Your task to perform on an android device: Open ESPN.com Image 0: 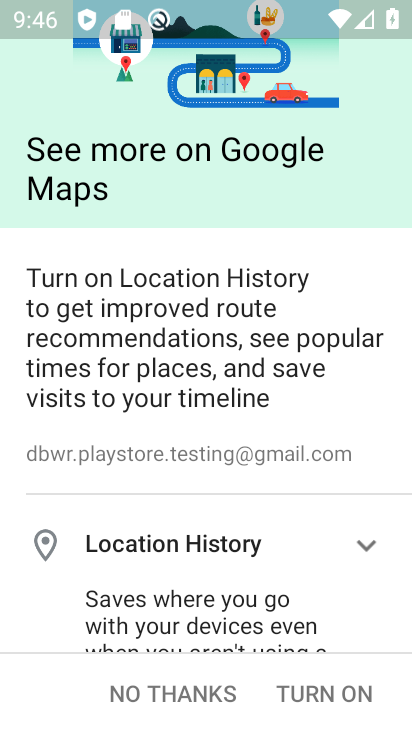
Step 0: press home button
Your task to perform on an android device: Open ESPN.com Image 1: 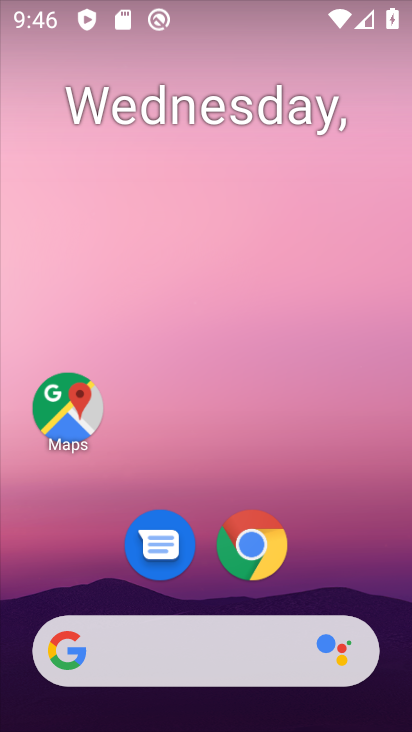
Step 1: click (232, 649)
Your task to perform on an android device: Open ESPN.com Image 2: 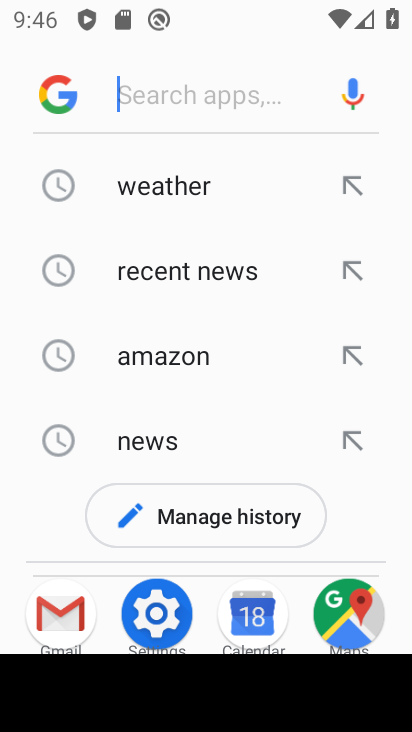
Step 2: type "espn.com"
Your task to perform on an android device: Open ESPN.com Image 3: 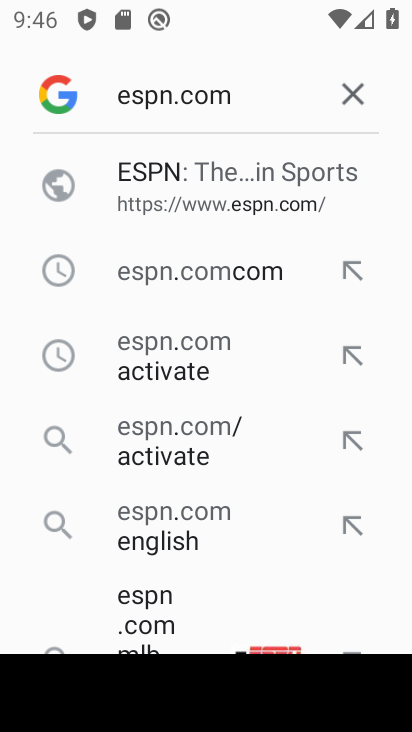
Step 3: click (157, 169)
Your task to perform on an android device: Open ESPN.com Image 4: 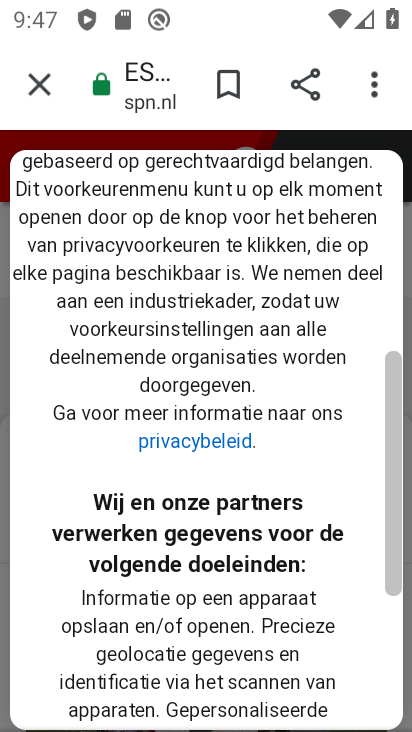
Step 4: task complete